Your task to perform on an android device: Go to notification settings Image 0: 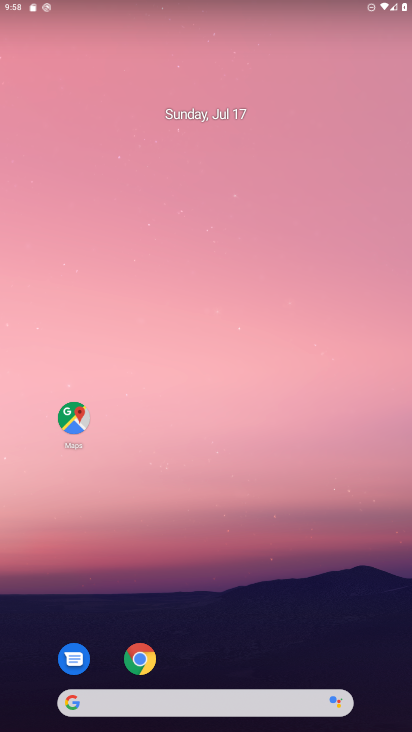
Step 0: drag from (231, 608) to (249, 451)
Your task to perform on an android device: Go to notification settings Image 1: 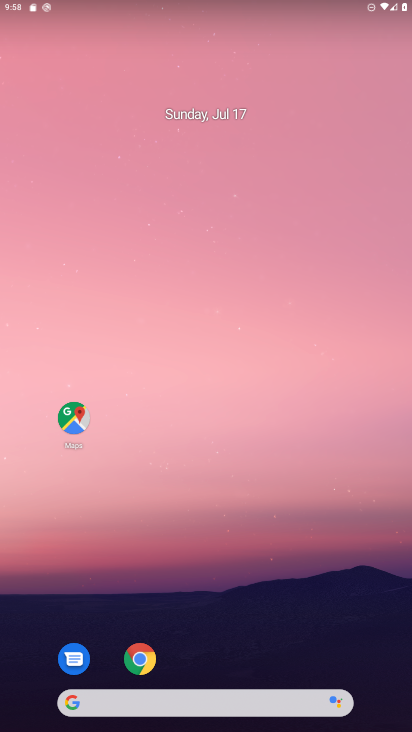
Step 1: drag from (249, 512) to (255, 77)
Your task to perform on an android device: Go to notification settings Image 2: 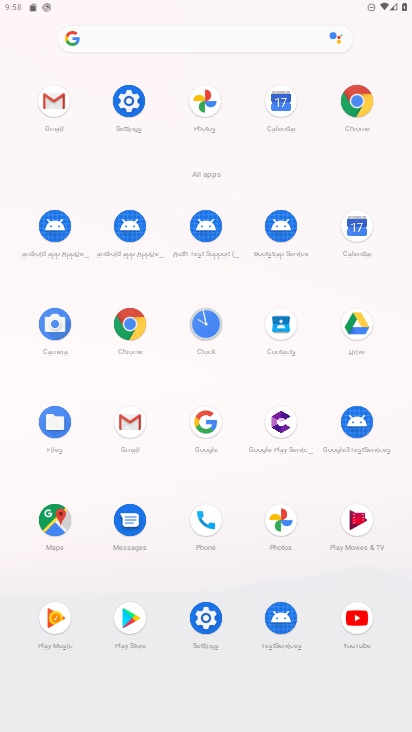
Step 2: click (205, 620)
Your task to perform on an android device: Go to notification settings Image 3: 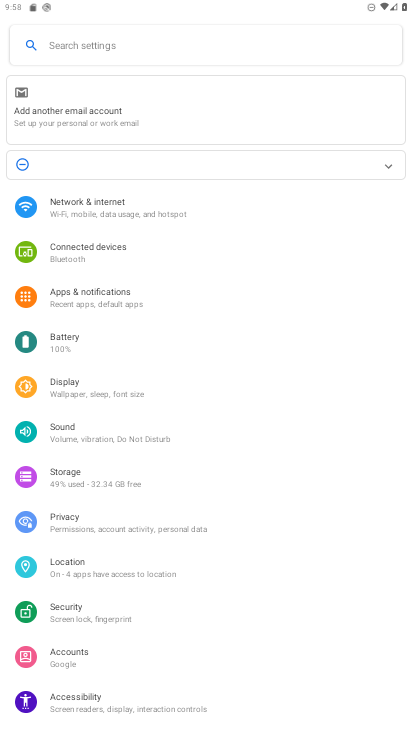
Step 3: click (87, 309)
Your task to perform on an android device: Go to notification settings Image 4: 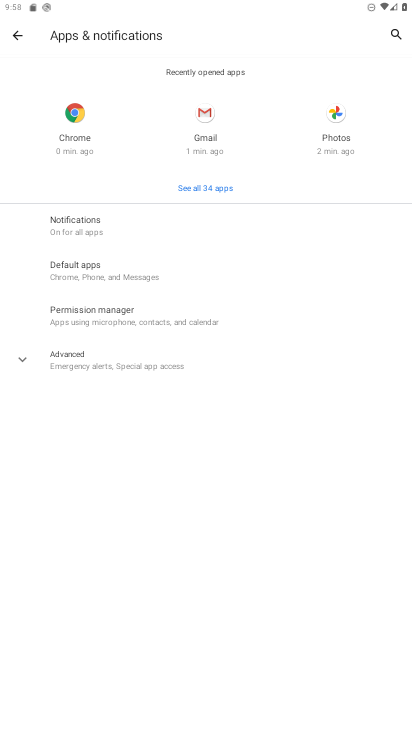
Step 4: click (104, 221)
Your task to perform on an android device: Go to notification settings Image 5: 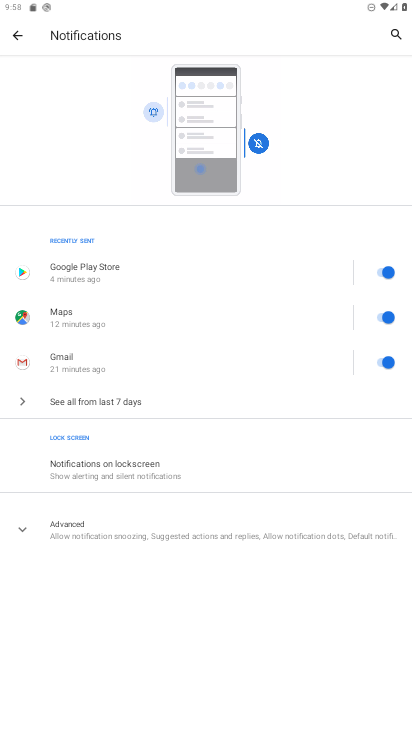
Step 5: task complete